Your task to perform on an android device: Go to sound settings Image 0: 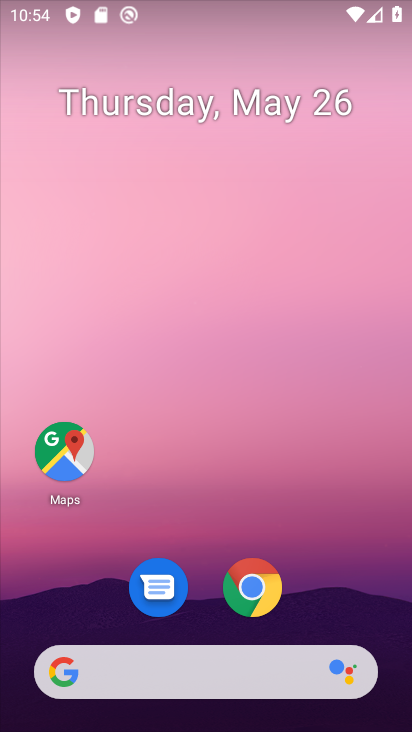
Step 0: press home button
Your task to perform on an android device: Go to sound settings Image 1: 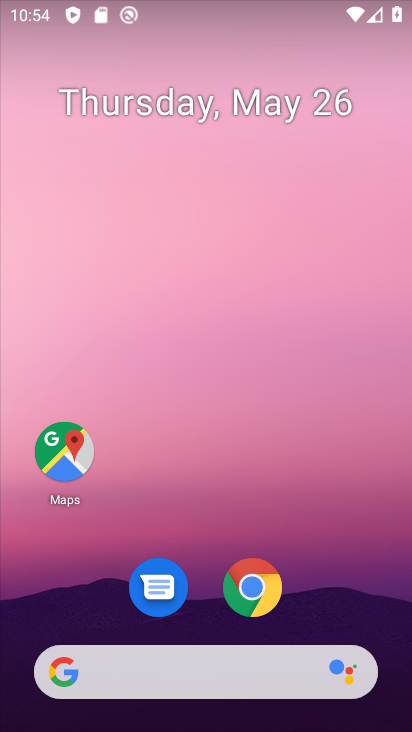
Step 1: drag from (271, 710) to (320, 56)
Your task to perform on an android device: Go to sound settings Image 2: 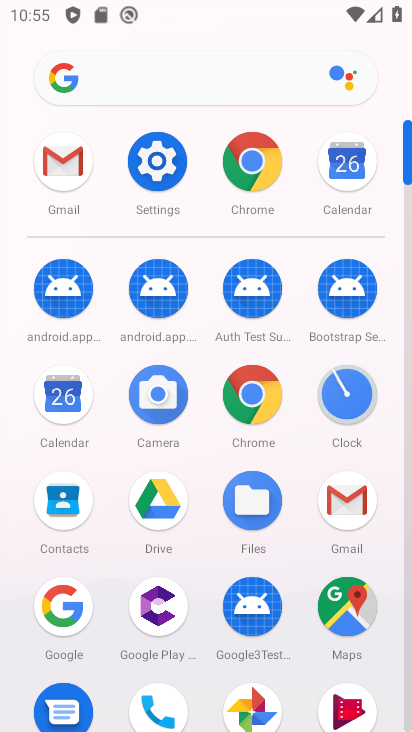
Step 2: click (147, 179)
Your task to perform on an android device: Go to sound settings Image 3: 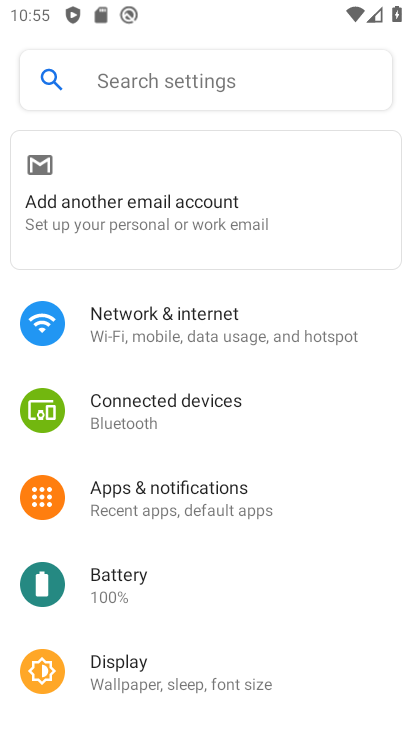
Step 3: click (177, 85)
Your task to perform on an android device: Go to sound settings Image 4: 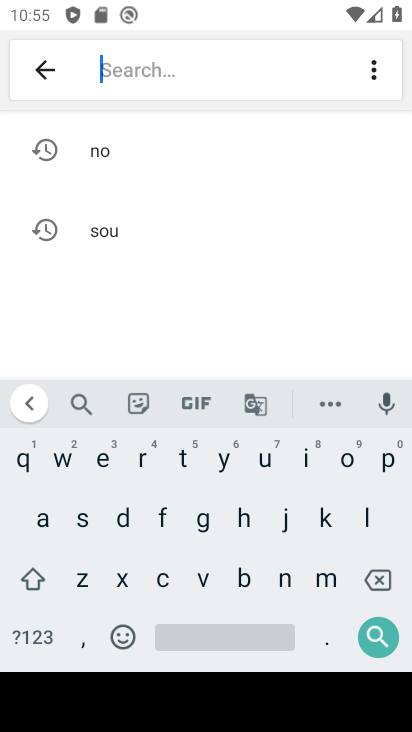
Step 4: click (75, 519)
Your task to perform on an android device: Go to sound settings Image 5: 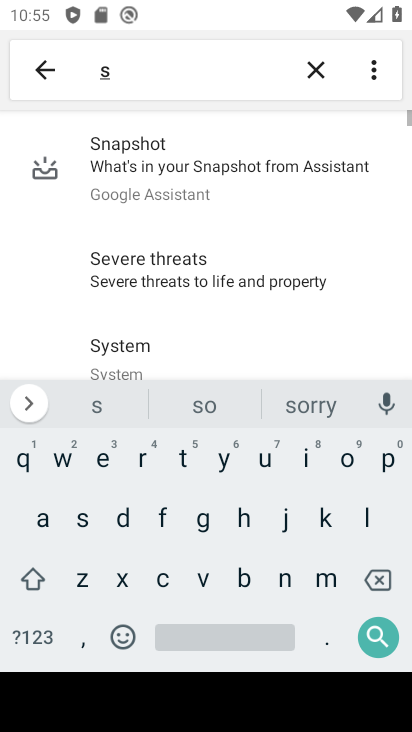
Step 5: click (340, 459)
Your task to perform on an android device: Go to sound settings Image 6: 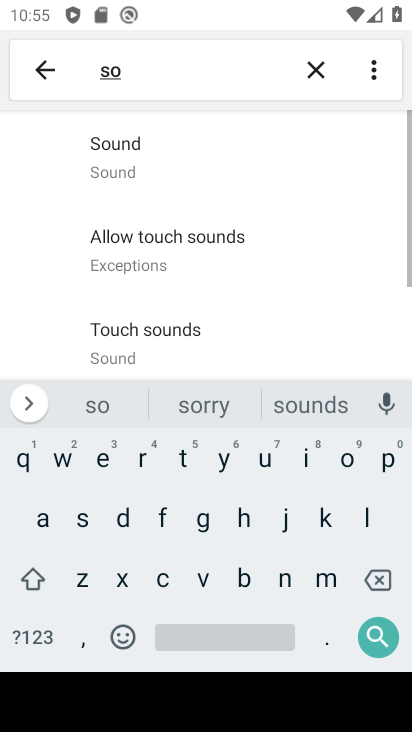
Step 6: click (137, 176)
Your task to perform on an android device: Go to sound settings Image 7: 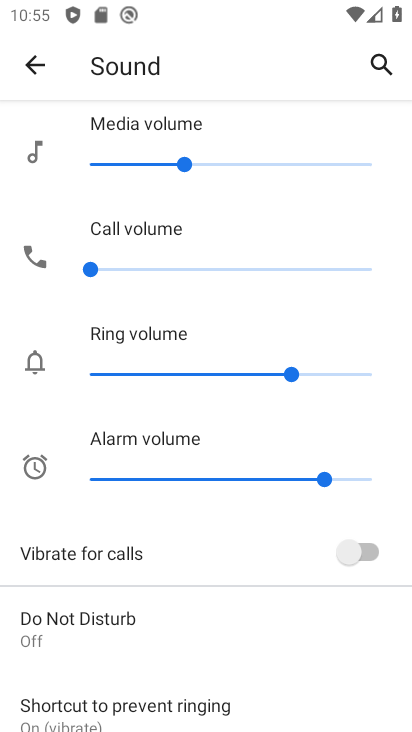
Step 7: task complete